Your task to perform on an android device: install app "File Manager" Image 0: 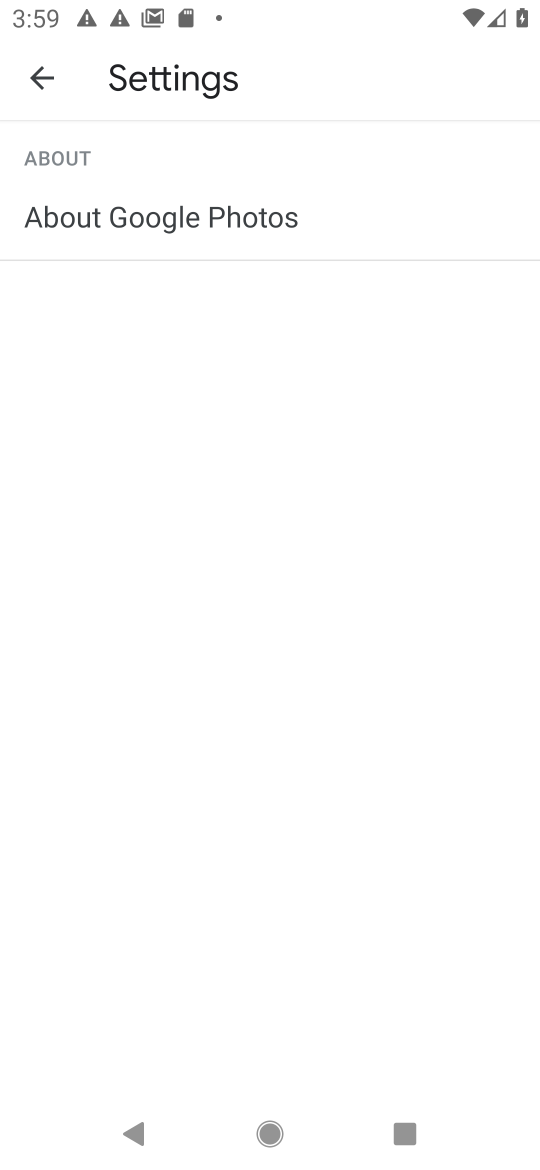
Step 0: press home button
Your task to perform on an android device: install app "File Manager" Image 1: 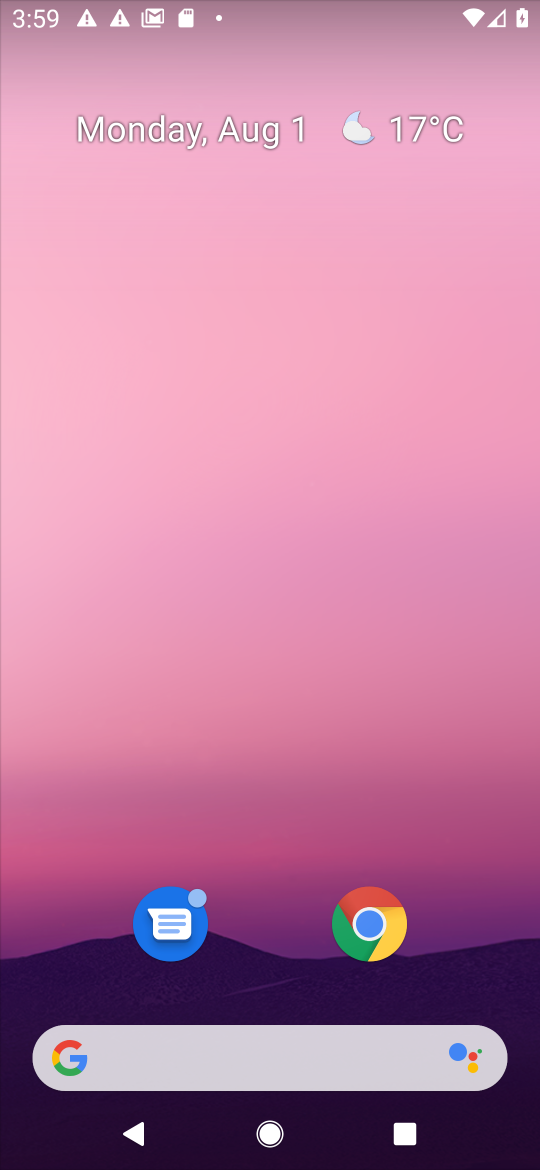
Step 1: drag from (313, 992) to (259, 134)
Your task to perform on an android device: install app "File Manager" Image 2: 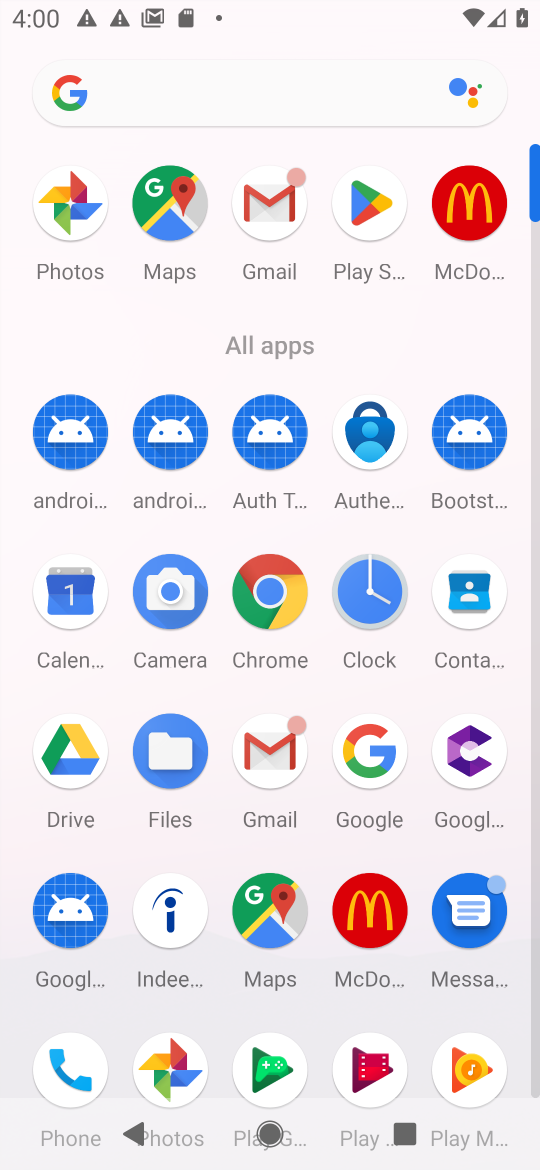
Step 2: click (368, 204)
Your task to perform on an android device: install app "File Manager" Image 3: 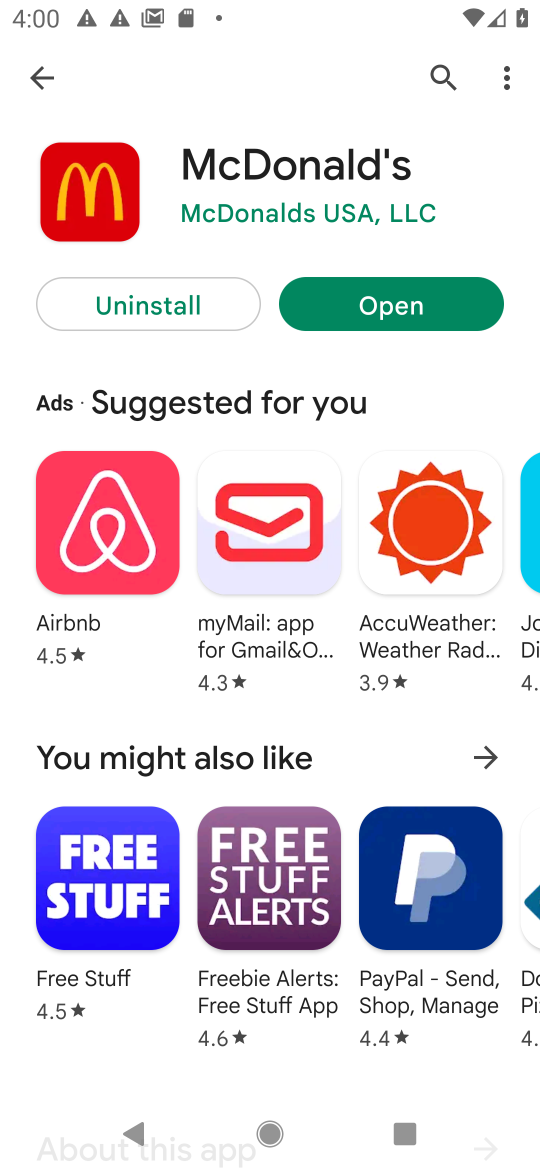
Step 3: click (439, 62)
Your task to perform on an android device: install app "File Manager" Image 4: 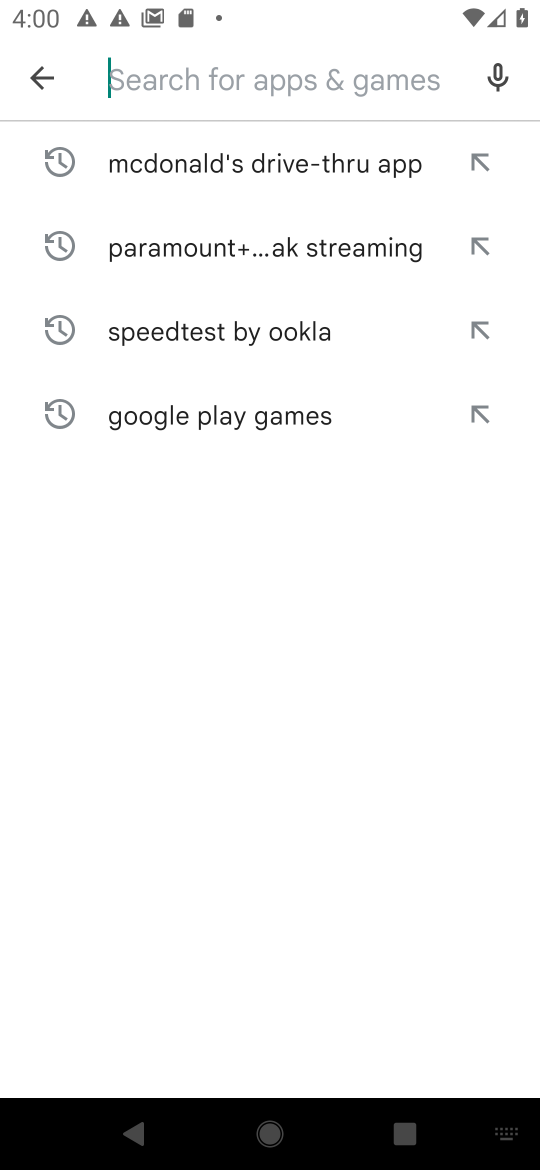
Step 4: type "File Manage"
Your task to perform on an android device: install app "File Manager" Image 5: 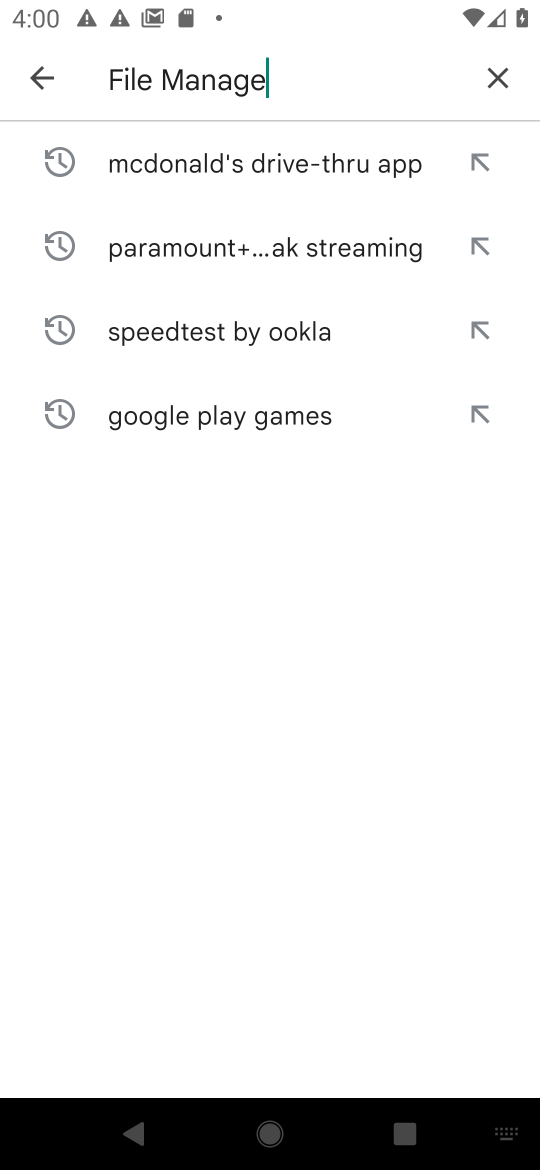
Step 5: type ""
Your task to perform on an android device: install app "File Manager" Image 6: 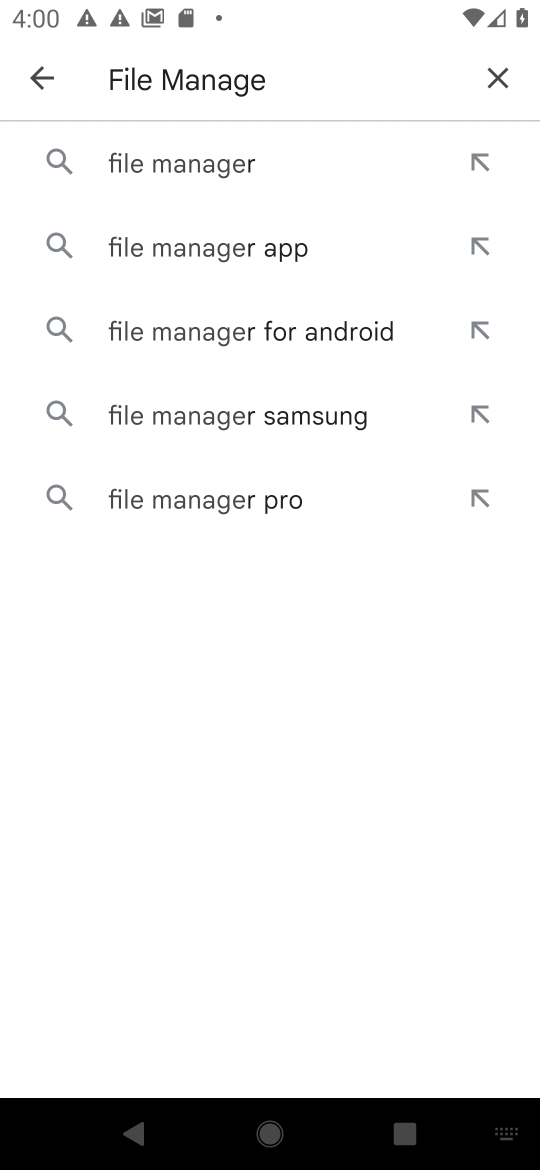
Step 6: click (184, 158)
Your task to perform on an android device: install app "File Manager" Image 7: 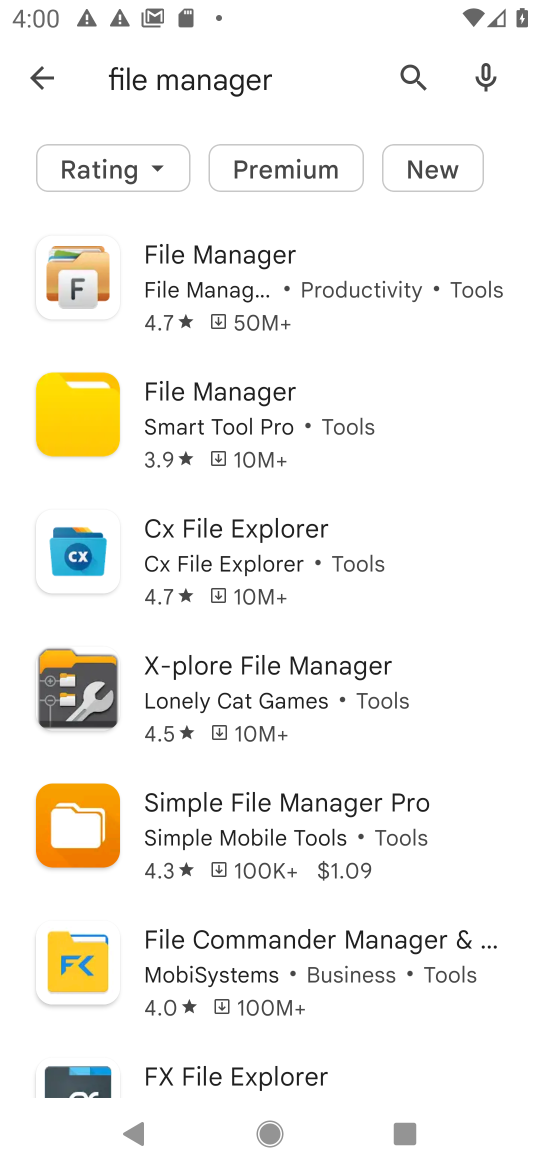
Step 7: click (250, 262)
Your task to perform on an android device: install app "File Manager" Image 8: 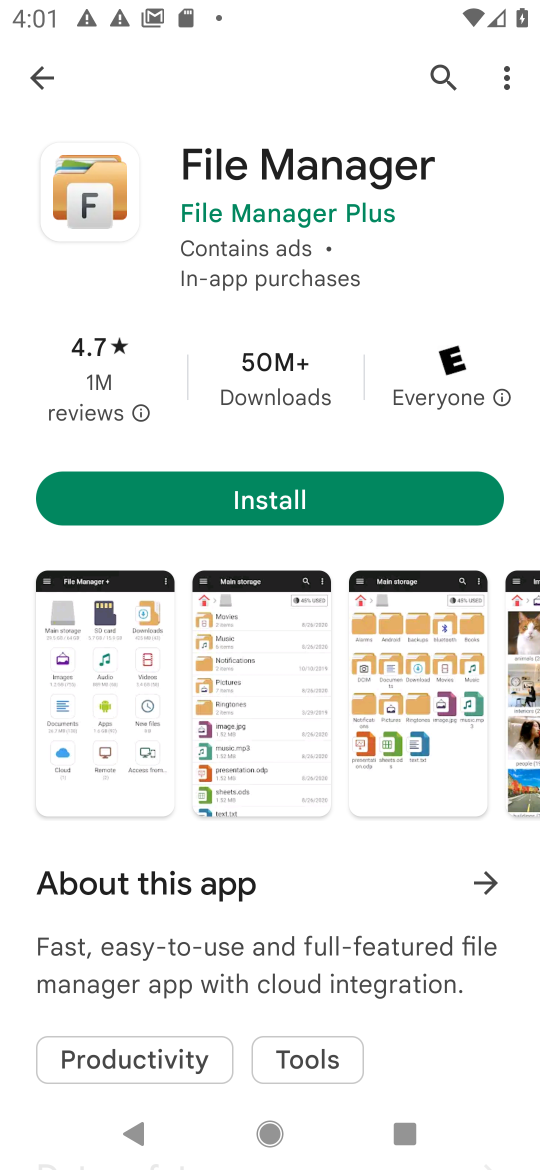
Step 8: click (267, 499)
Your task to perform on an android device: install app "File Manager" Image 9: 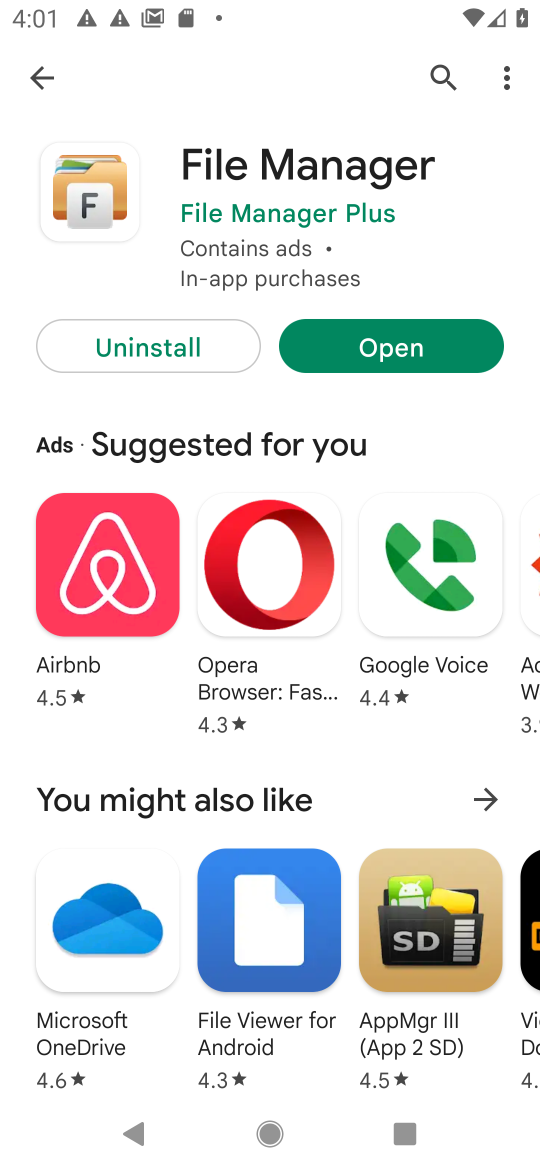
Step 9: task complete